Your task to perform on an android device: uninstall "eBay: The shopping marketplace" Image 0: 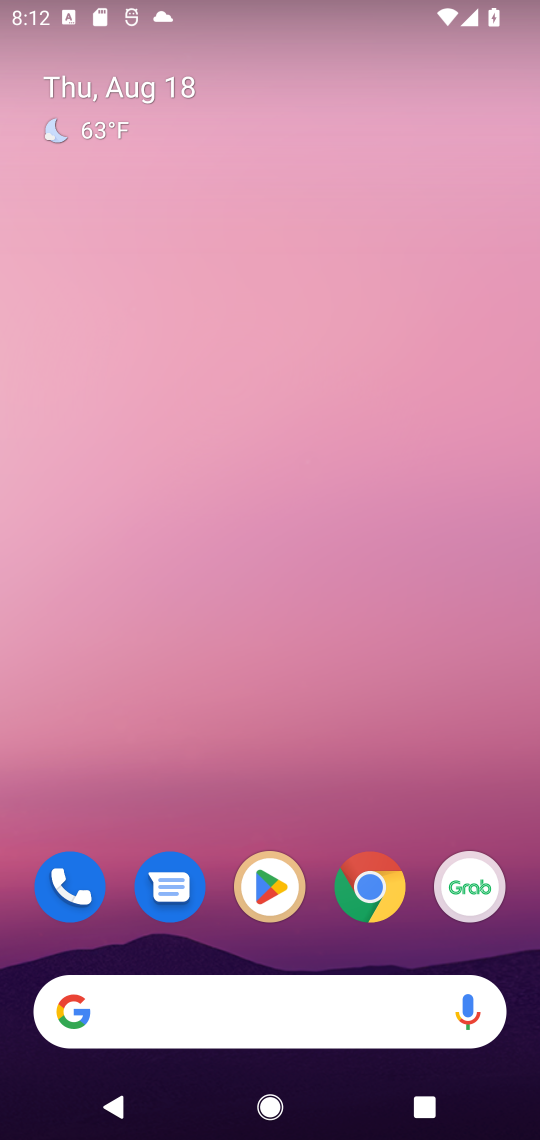
Step 0: click (269, 891)
Your task to perform on an android device: uninstall "eBay: The shopping marketplace" Image 1: 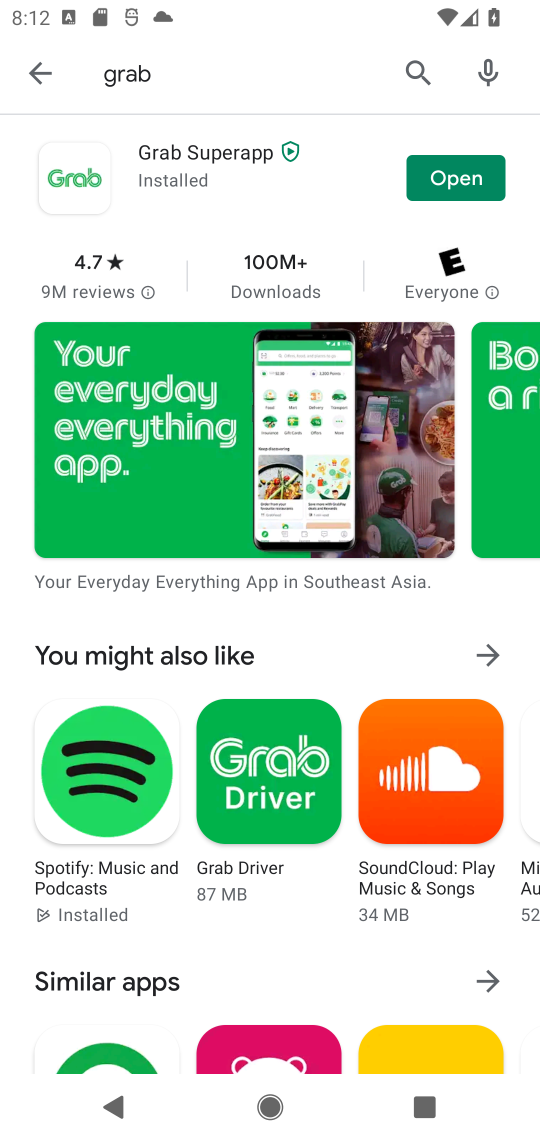
Step 1: click (413, 66)
Your task to perform on an android device: uninstall "eBay: The shopping marketplace" Image 2: 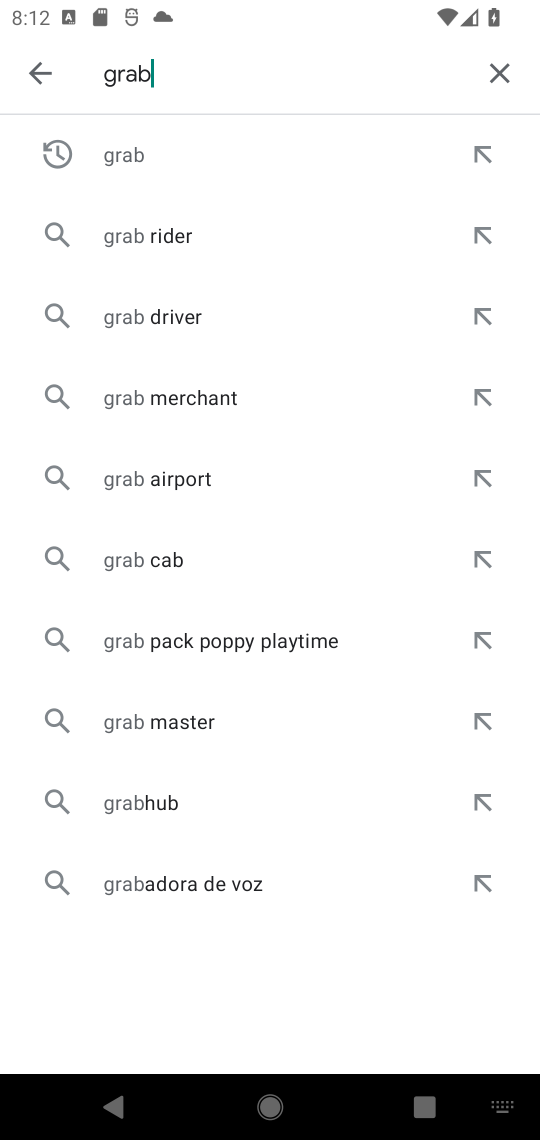
Step 2: click (490, 70)
Your task to perform on an android device: uninstall "eBay: The shopping marketplace" Image 3: 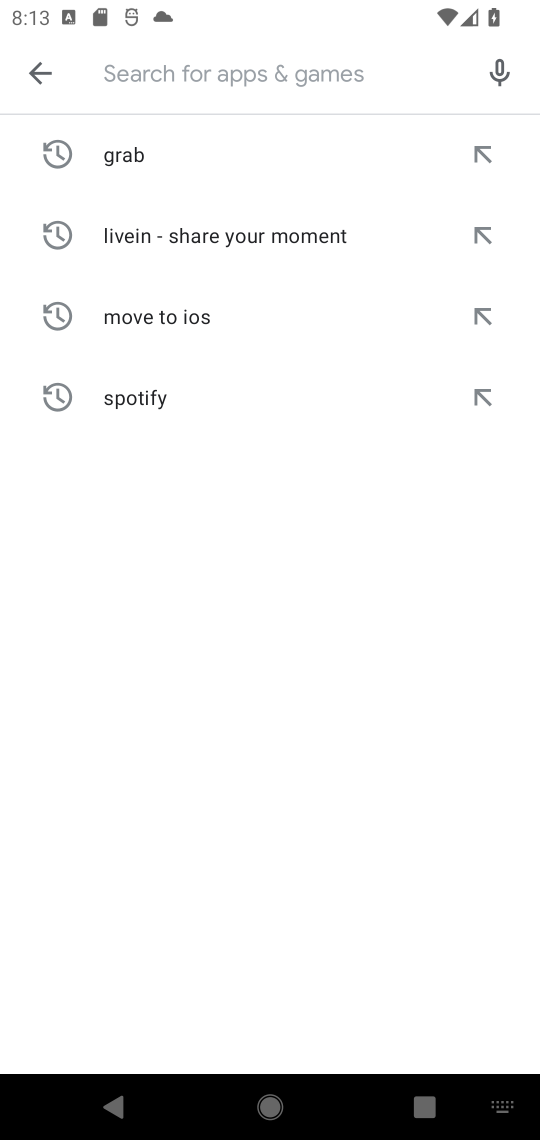
Step 3: type "eBay: The shopping marketplace"
Your task to perform on an android device: uninstall "eBay: The shopping marketplace" Image 4: 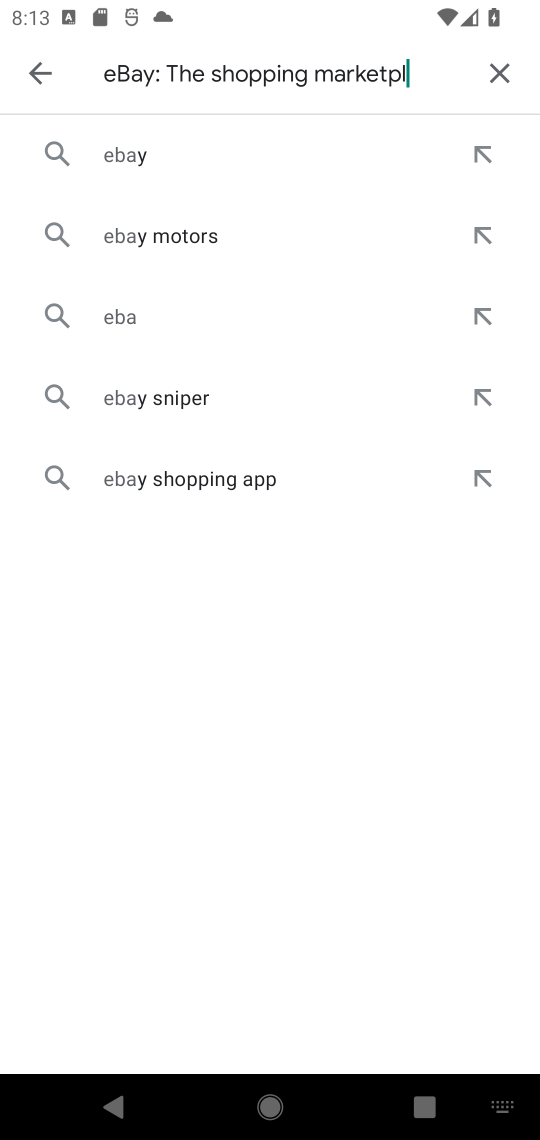
Step 4: type ""
Your task to perform on an android device: uninstall "eBay: The shopping marketplace" Image 5: 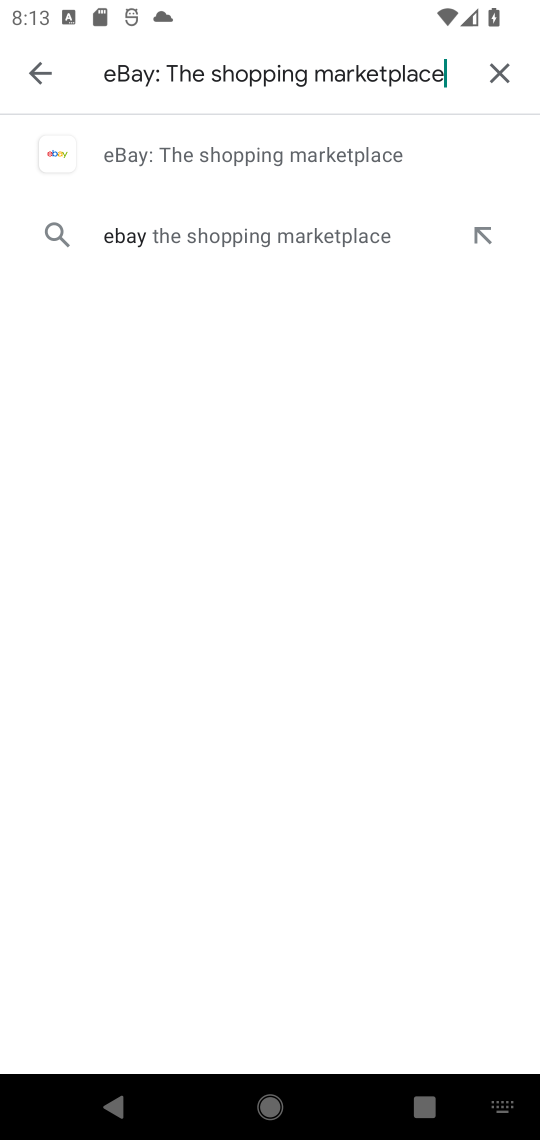
Step 5: click (219, 151)
Your task to perform on an android device: uninstall "eBay: The shopping marketplace" Image 6: 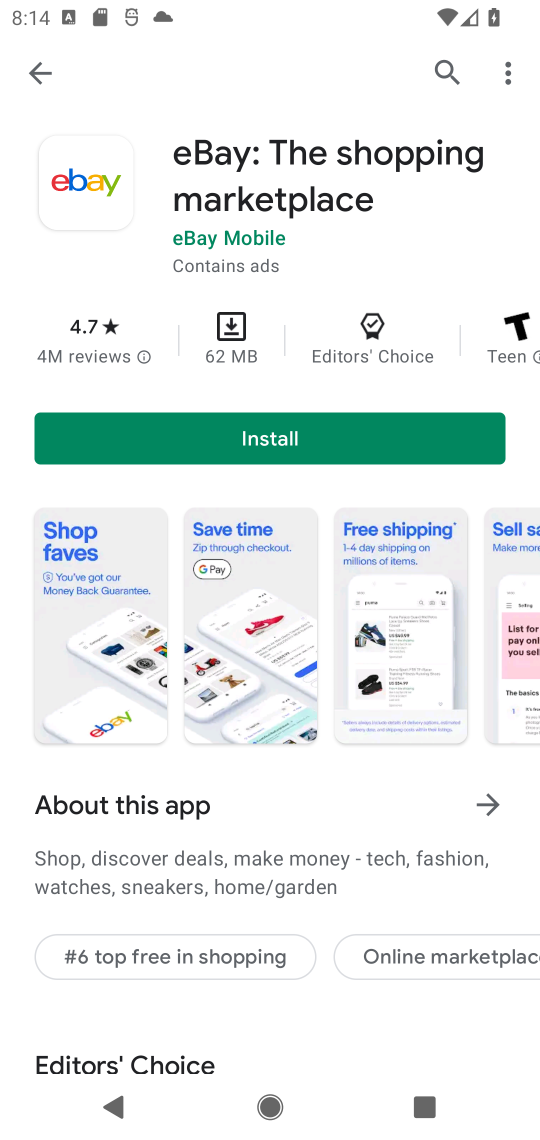
Step 6: task complete